Your task to perform on an android device: Open Yahoo.com Image 0: 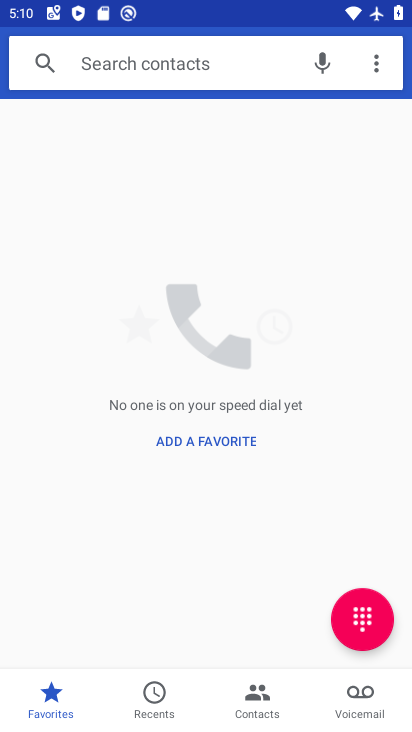
Step 0: press home button
Your task to perform on an android device: Open Yahoo.com Image 1: 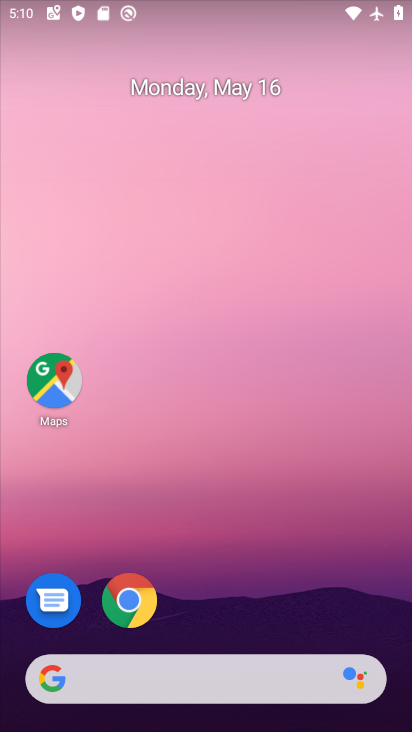
Step 1: click (147, 601)
Your task to perform on an android device: Open Yahoo.com Image 2: 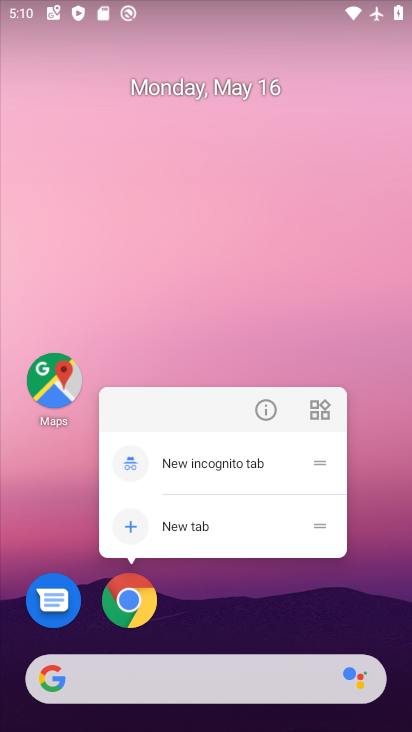
Step 2: click (140, 601)
Your task to perform on an android device: Open Yahoo.com Image 3: 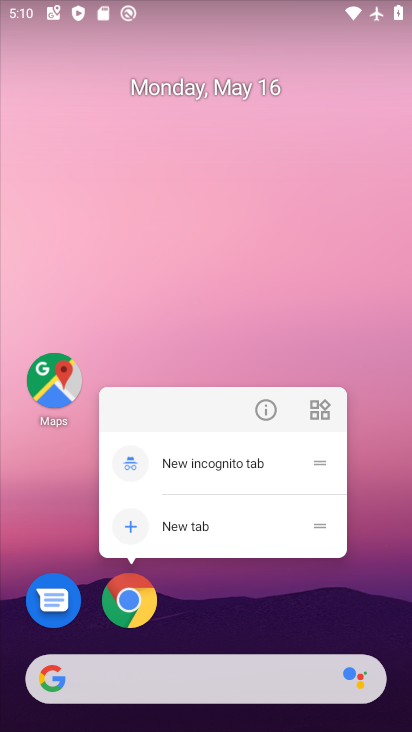
Step 3: click (111, 600)
Your task to perform on an android device: Open Yahoo.com Image 4: 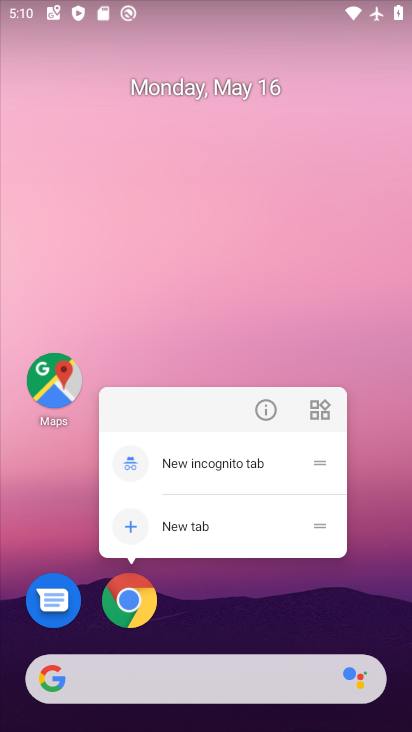
Step 4: click (126, 619)
Your task to perform on an android device: Open Yahoo.com Image 5: 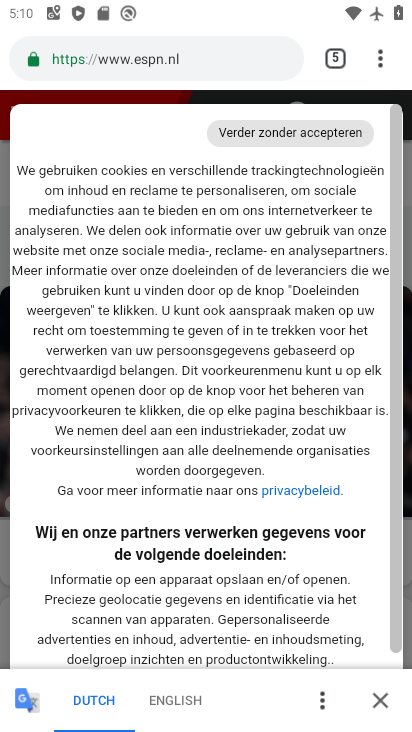
Step 5: task complete